Your task to perform on an android device: Search for vegetarian restaurants on Maps Image 0: 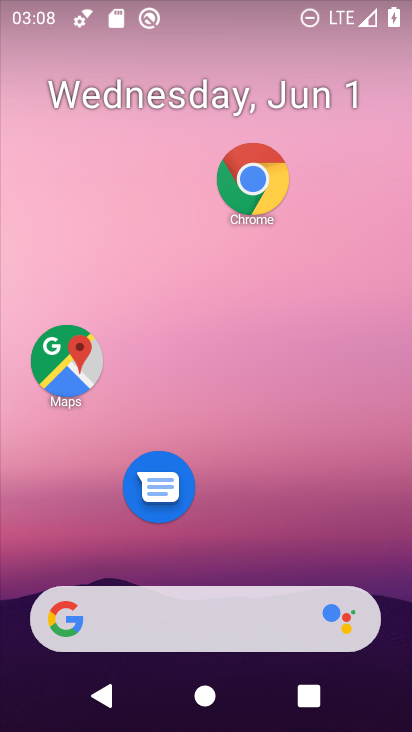
Step 0: click (64, 364)
Your task to perform on an android device: Search for vegetarian restaurants on Maps Image 1: 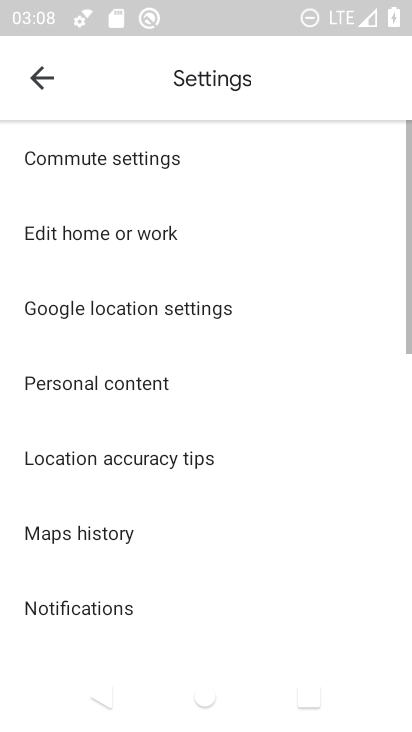
Step 1: click (42, 81)
Your task to perform on an android device: Search for vegetarian restaurants on Maps Image 2: 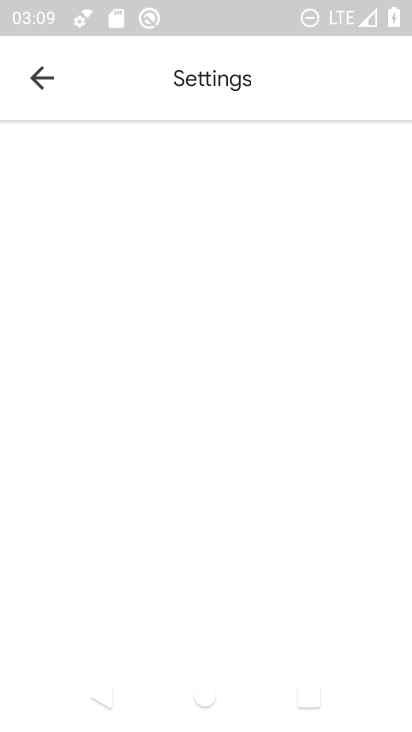
Step 2: click (42, 80)
Your task to perform on an android device: Search for vegetarian restaurants on Maps Image 3: 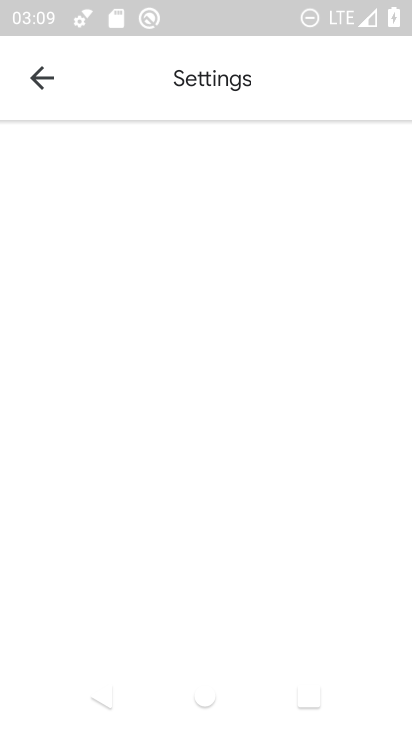
Step 3: click (40, 79)
Your task to perform on an android device: Search for vegetarian restaurants on Maps Image 4: 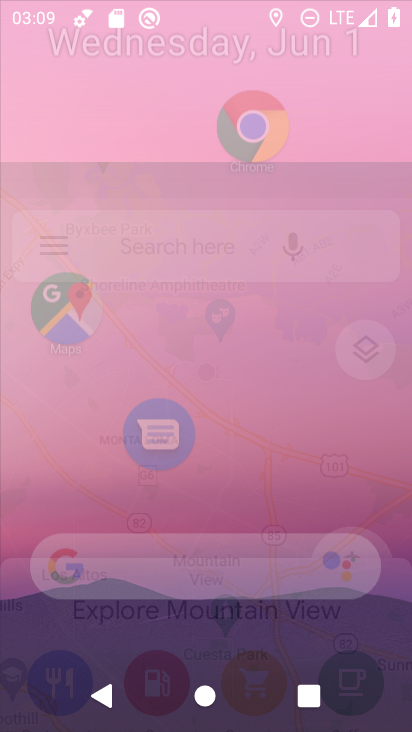
Step 4: click (140, 65)
Your task to perform on an android device: Search for vegetarian restaurants on Maps Image 5: 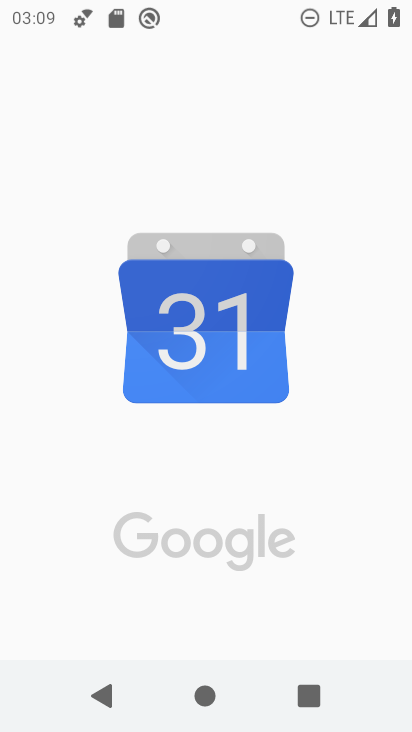
Step 5: press home button
Your task to perform on an android device: Search for vegetarian restaurants on Maps Image 6: 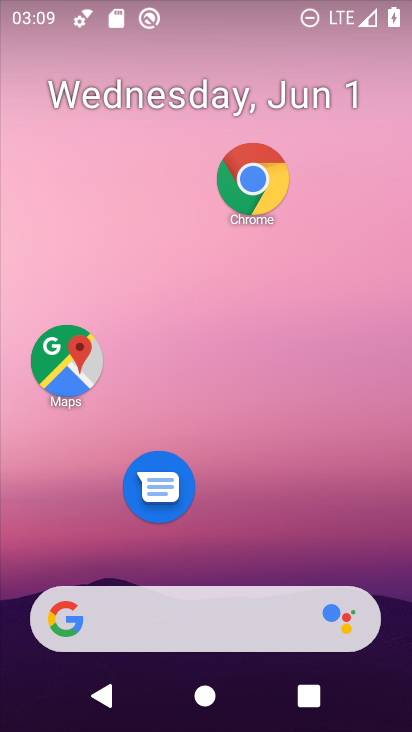
Step 6: click (65, 366)
Your task to perform on an android device: Search for vegetarian restaurants on Maps Image 7: 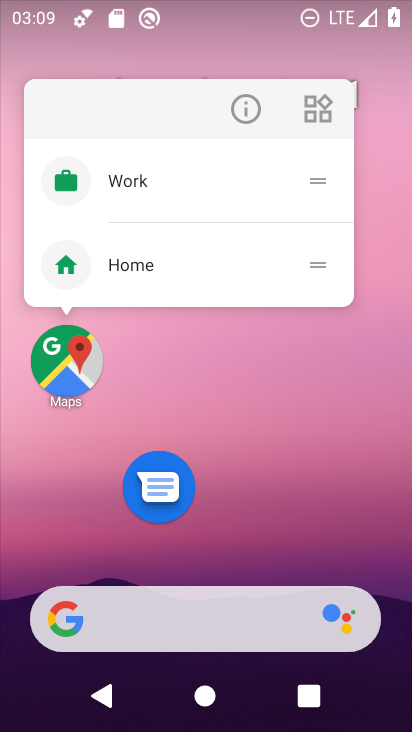
Step 7: click (73, 358)
Your task to perform on an android device: Search for vegetarian restaurants on Maps Image 8: 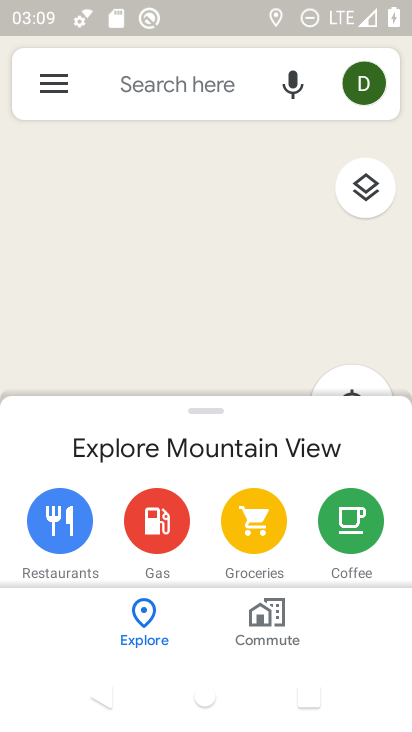
Step 8: click (138, 79)
Your task to perform on an android device: Search for vegetarian restaurants on Maps Image 9: 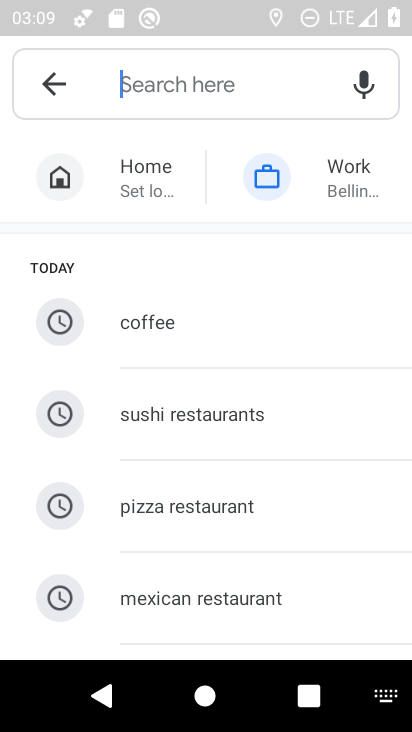
Step 9: click (253, 317)
Your task to perform on an android device: Search for vegetarian restaurants on Maps Image 10: 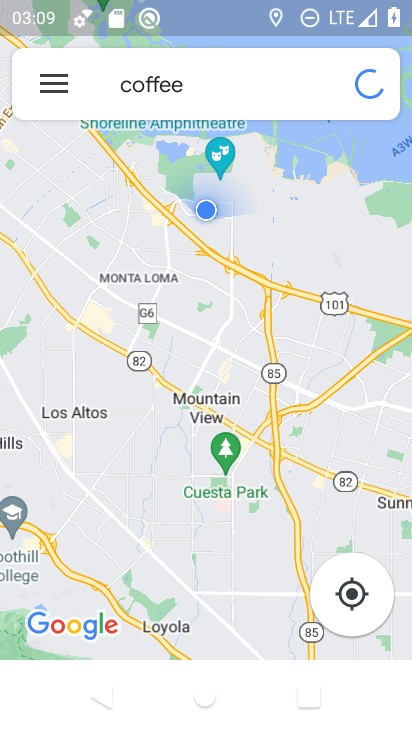
Step 10: drag from (225, 555) to (227, 300)
Your task to perform on an android device: Search for vegetarian restaurants on Maps Image 11: 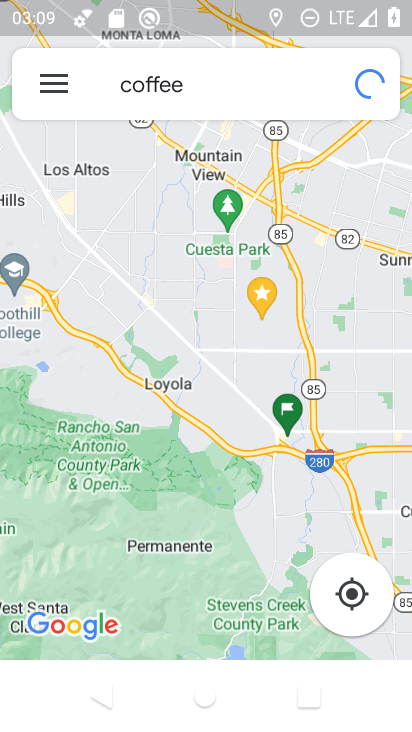
Step 11: click (61, 78)
Your task to perform on an android device: Search for vegetarian restaurants on Maps Image 12: 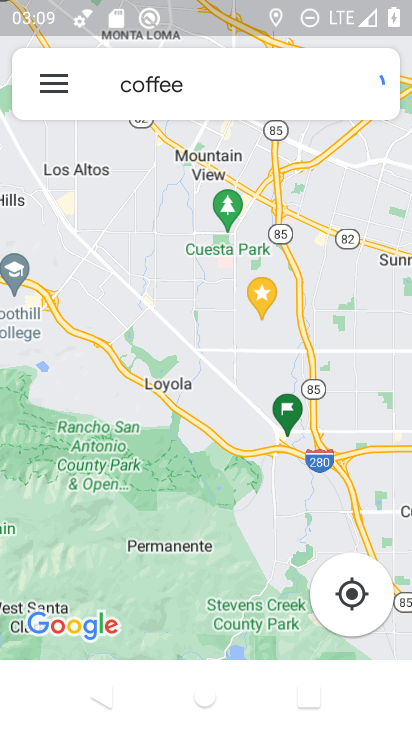
Step 12: click (234, 88)
Your task to perform on an android device: Search for vegetarian restaurants on Maps Image 13: 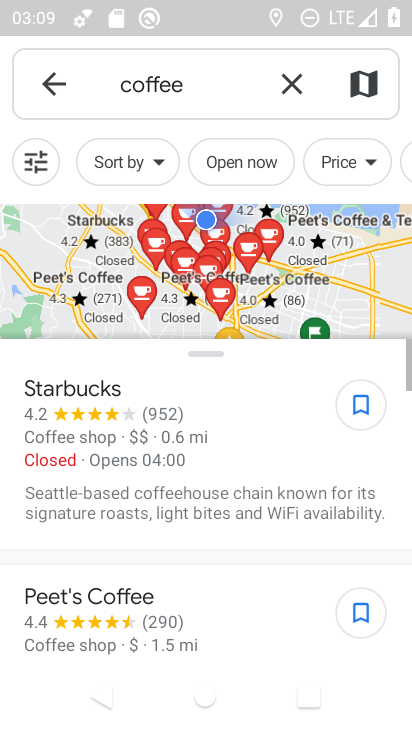
Step 13: click (279, 85)
Your task to perform on an android device: Search for vegetarian restaurants on Maps Image 14: 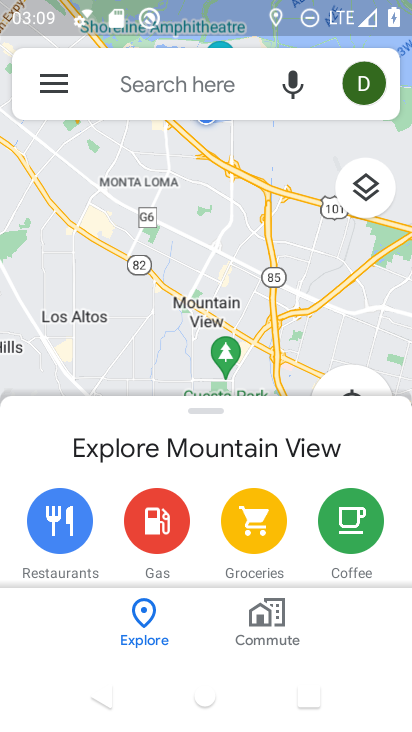
Step 14: click (193, 58)
Your task to perform on an android device: Search for vegetarian restaurants on Maps Image 15: 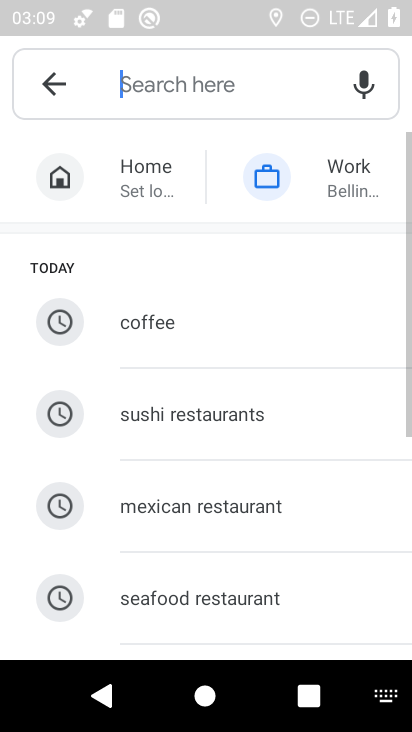
Step 15: drag from (248, 608) to (290, 243)
Your task to perform on an android device: Search for vegetarian restaurants on Maps Image 16: 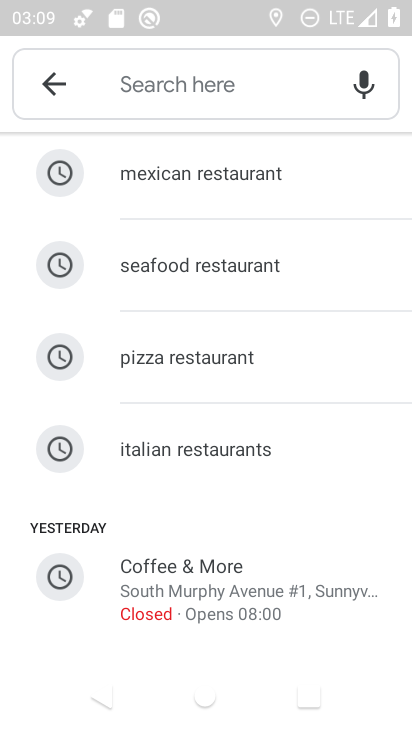
Step 16: drag from (218, 241) to (239, 631)
Your task to perform on an android device: Search for vegetarian restaurants on Maps Image 17: 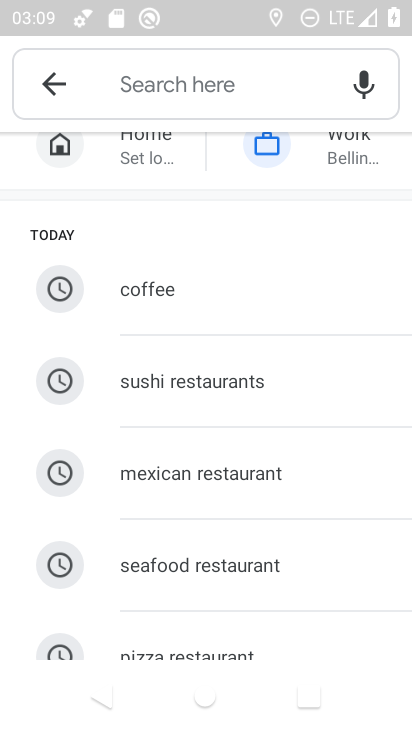
Step 17: click (217, 87)
Your task to perform on an android device: Search for vegetarian restaurants on Maps Image 18: 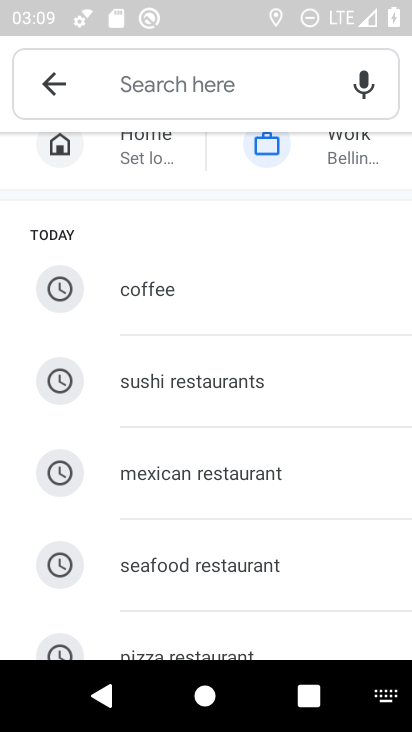
Step 18: type "vegetarian restaurants "
Your task to perform on an android device: Search for vegetarian restaurants on Maps Image 19: 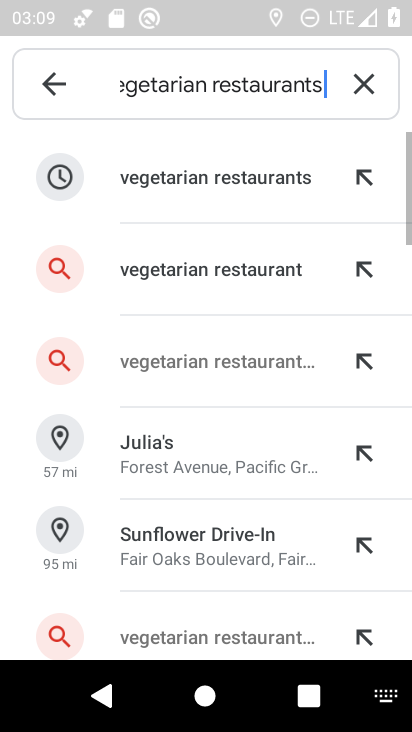
Step 19: click (231, 172)
Your task to perform on an android device: Search for vegetarian restaurants on Maps Image 20: 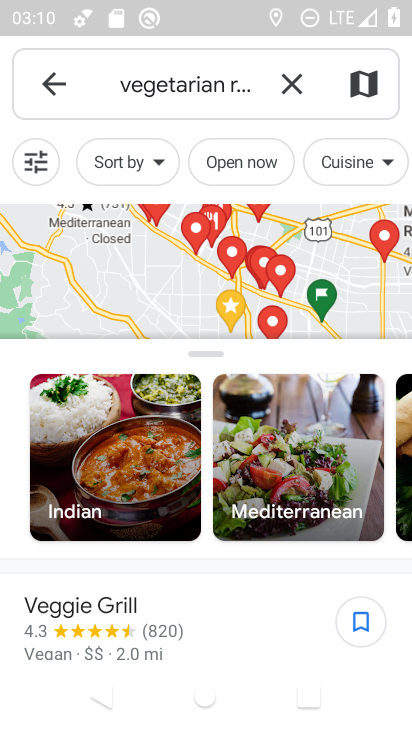
Step 20: task complete